Your task to perform on an android device: check battery use Image 0: 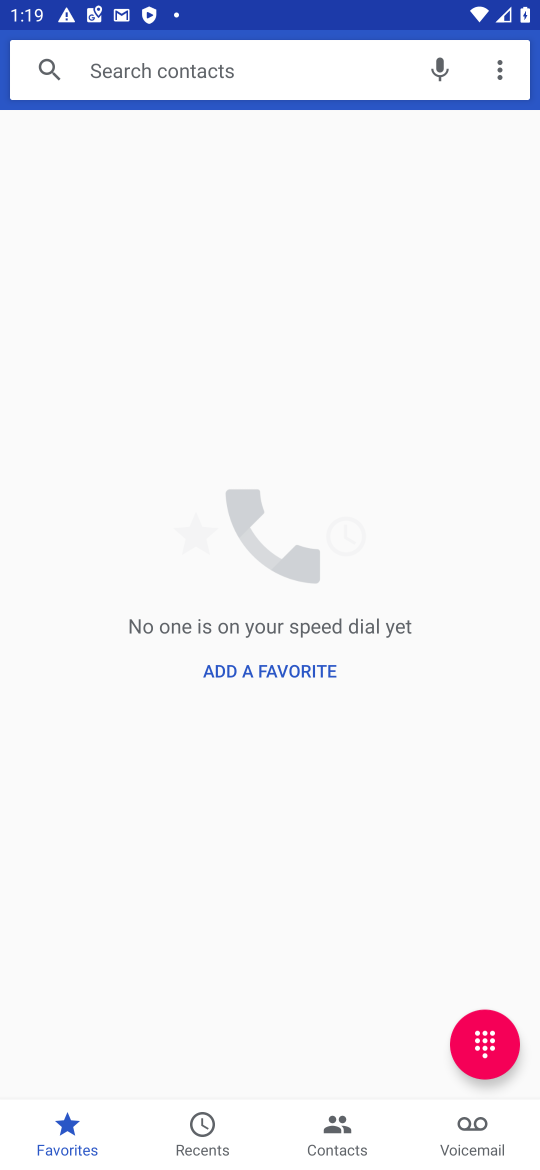
Step 0: press home button
Your task to perform on an android device: check battery use Image 1: 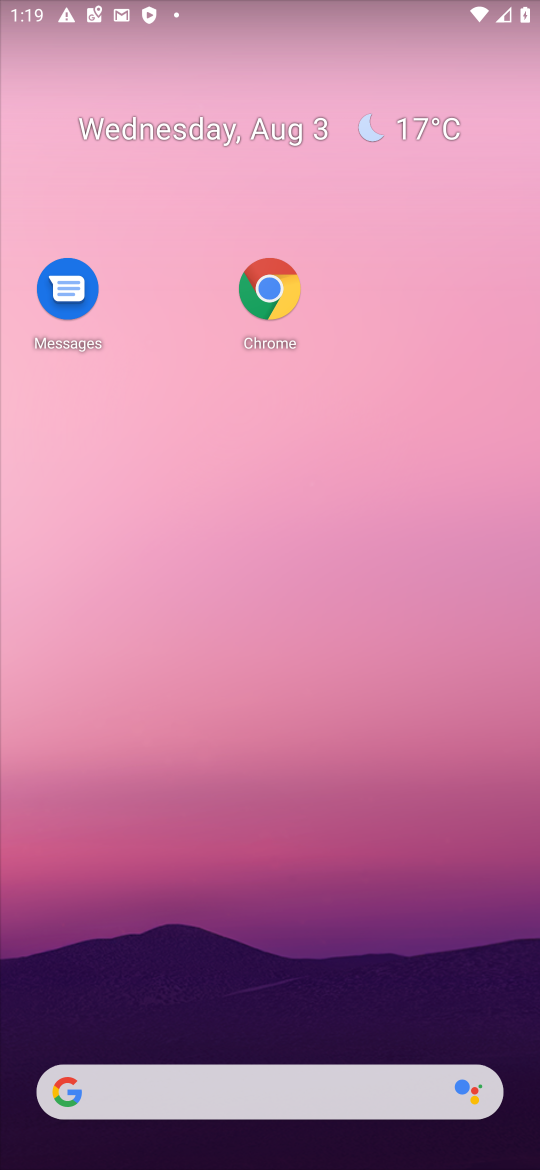
Step 1: drag from (236, 928) to (58, 377)
Your task to perform on an android device: check battery use Image 2: 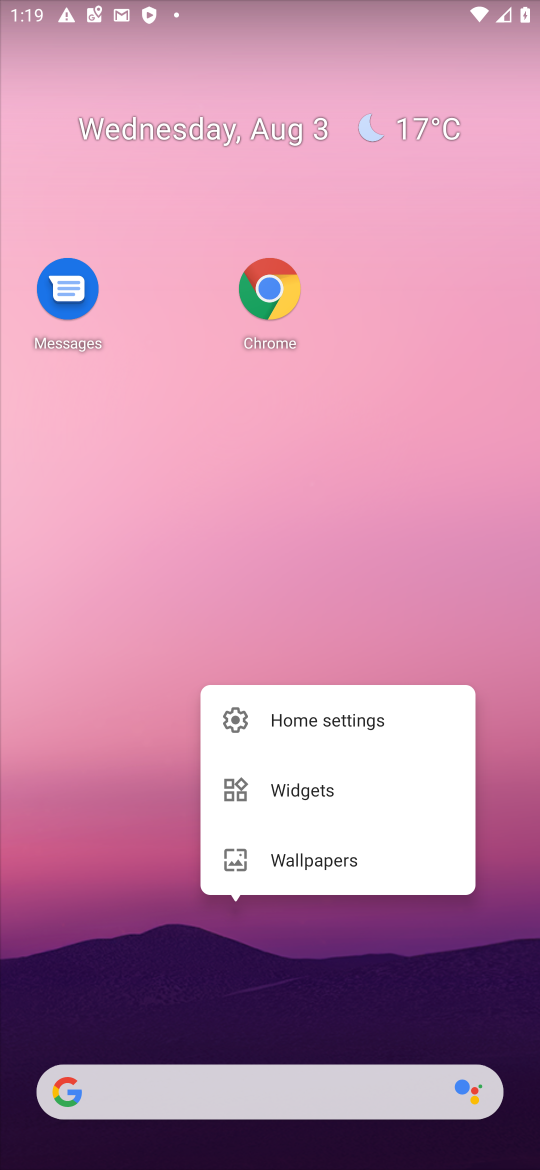
Step 2: click (145, 415)
Your task to perform on an android device: check battery use Image 3: 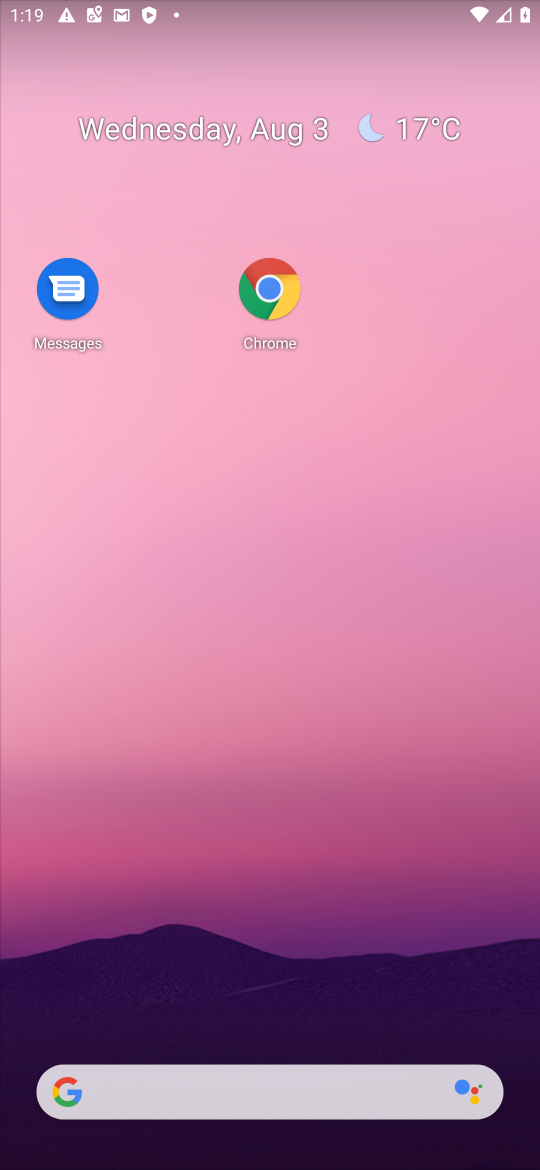
Step 3: drag from (208, 937) to (182, 360)
Your task to perform on an android device: check battery use Image 4: 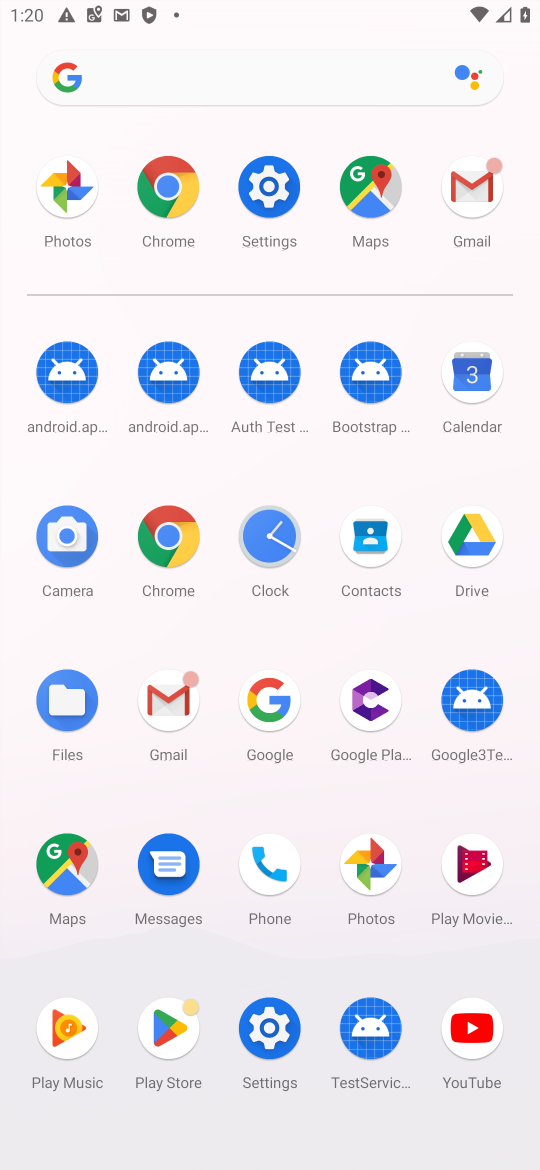
Step 4: click (267, 1043)
Your task to perform on an android device: check battery use Image 5: 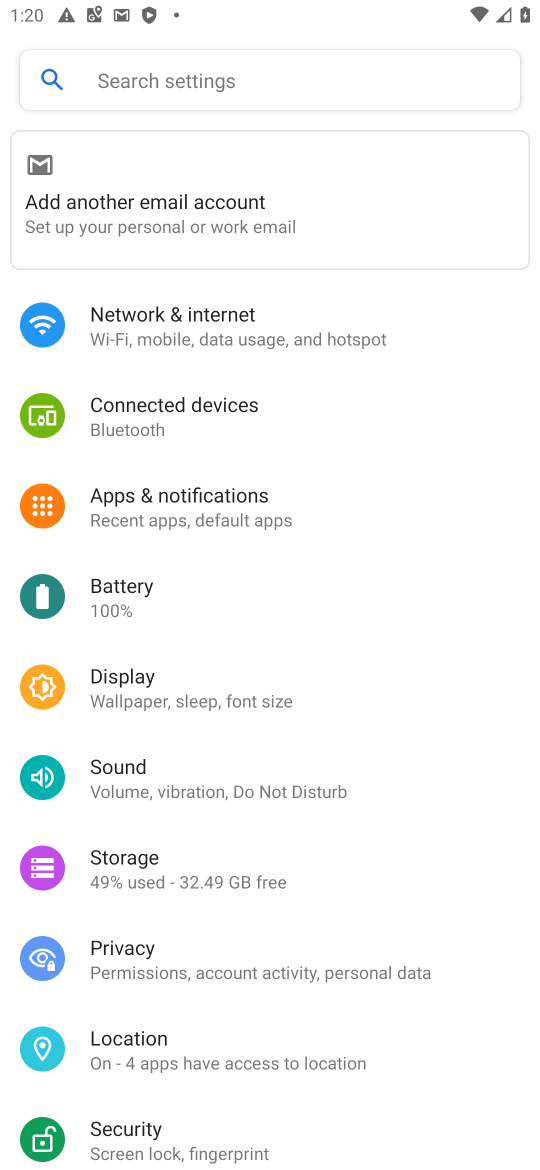
Step 5: click (184, 607)
Your task to perform on an android device: check battery use Image 6: 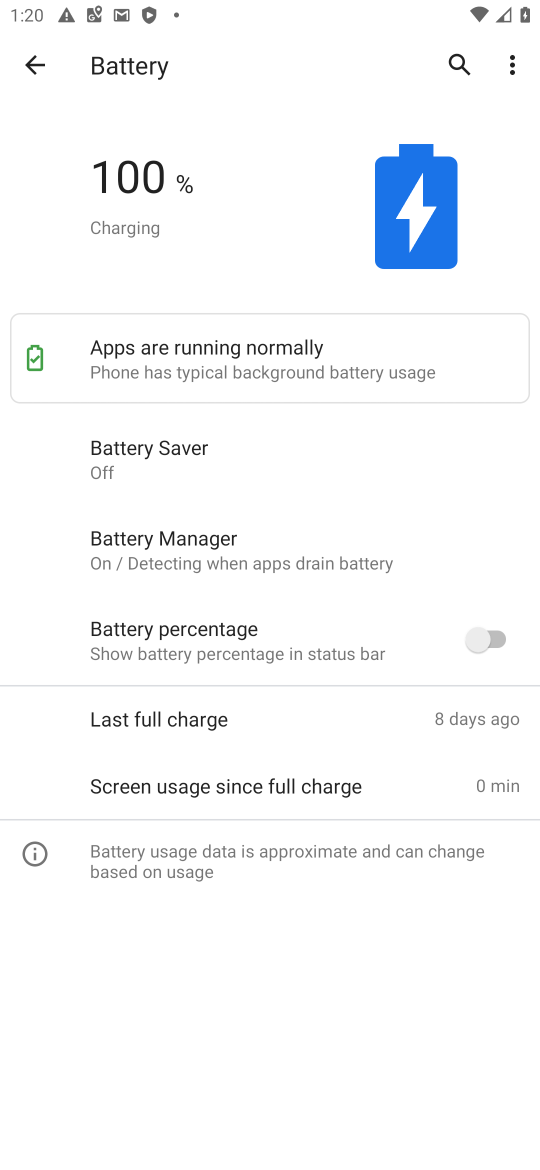
Step 6: task complete